Your task to perform on an android device: create a new album in the google photos Image 0: 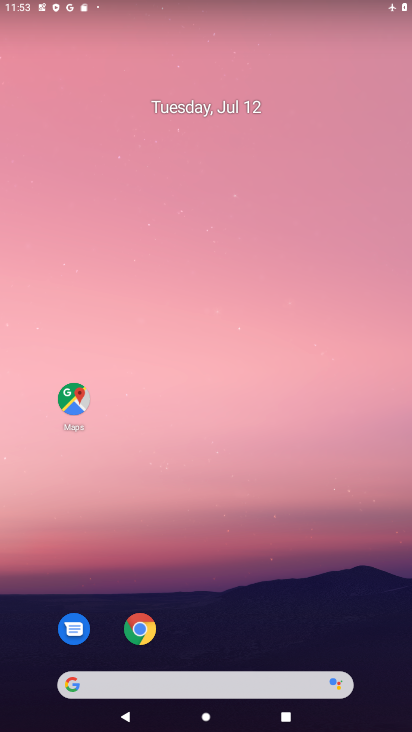
Step 0: drag from (320, 655) to (341, 50)
Your task to perform on an android device: create a new album in the google photos Image 1: 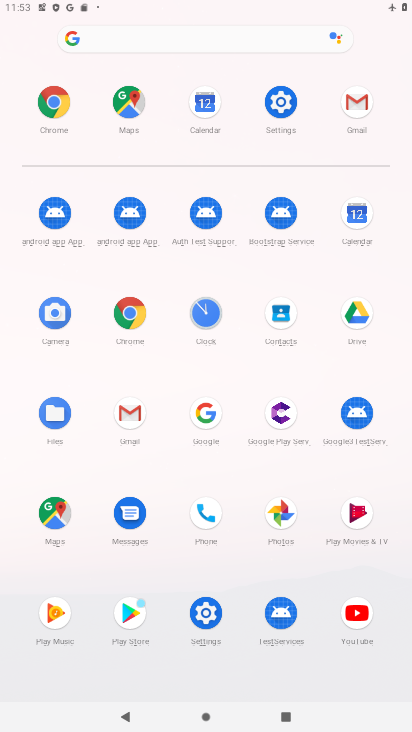
Step 1: click (270, 506)
Your task to perform on an android device: create a new album in the google photos Image 2: 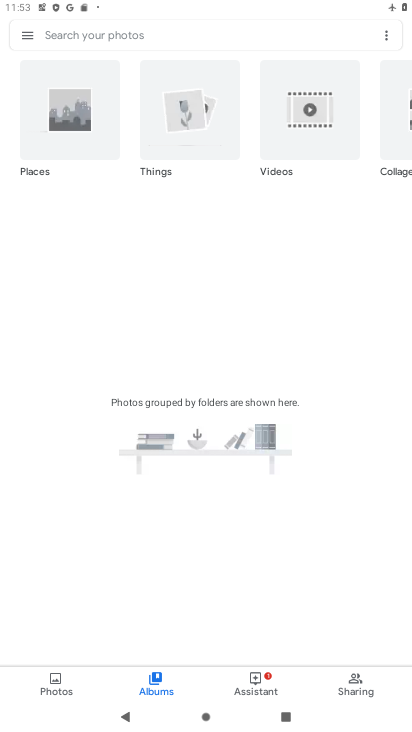
Step 2: task complete